Your task to perform on an android device: toggle notification dots Image 0: 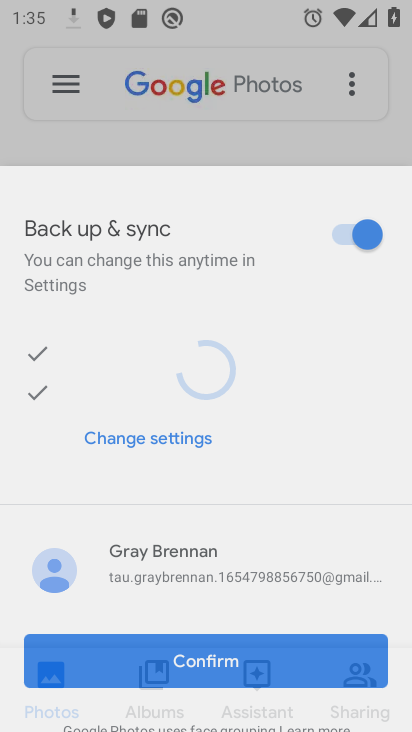
Step 0: press home button
Your task to perform on an android device: toggle notification dots Image 1: 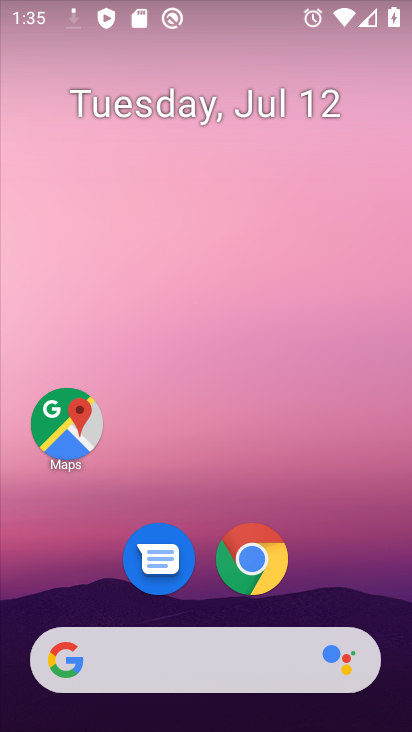
Step 1: drag from (365, 593) to (349, 71)
Your task to perform on an android device: toggle notification dots Image 2: 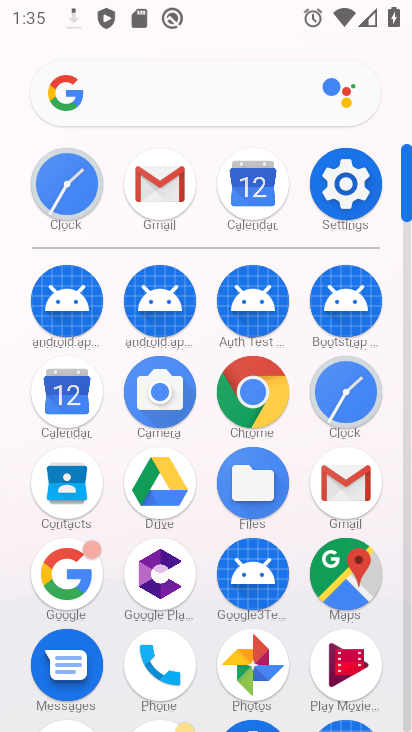
Step 2: click (358, 207)
Your task to perform on an android device: toggle notification dots Image 3: 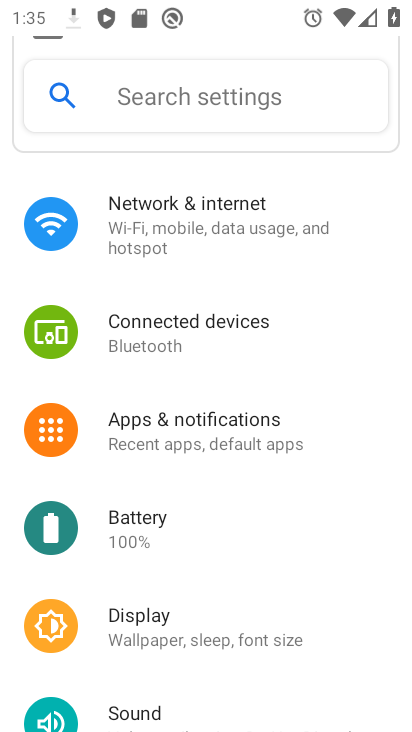
Step 3: drag from (358, 410) to (355, 277)
Your task to perform on an android device: toggle notification dots Image 4: 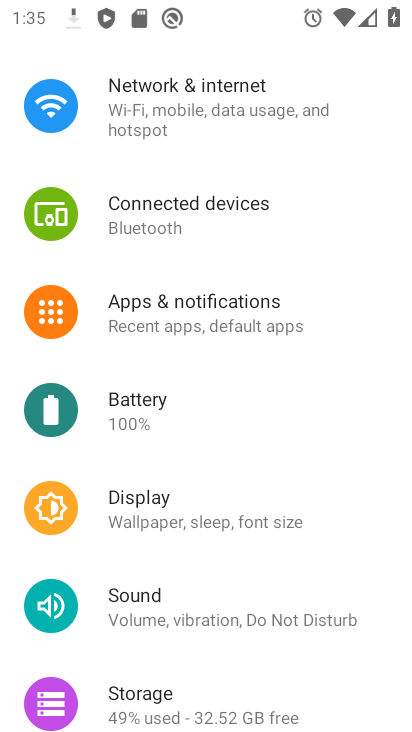
Step 4: drag from (340, 425) to (337, 253)
Your task to perform on an android device: toggle notification dots Image 5: 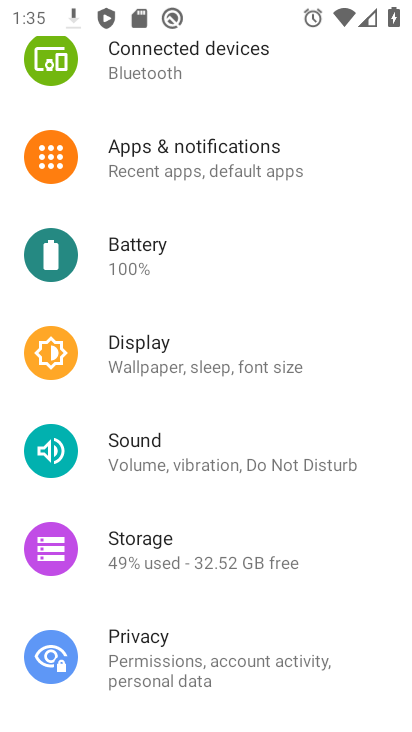
Step 5: drag from (353, 412) to (338, 302)
Your task to perform on an android device: toggle notification dots Image 6: 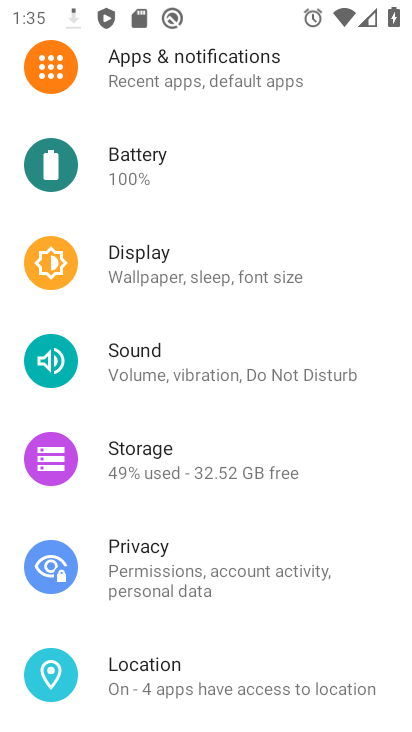
Step 6: drag from (348, 271) to (346, 388)
Your task to perform on an android device: toggle notification dots Image 7: 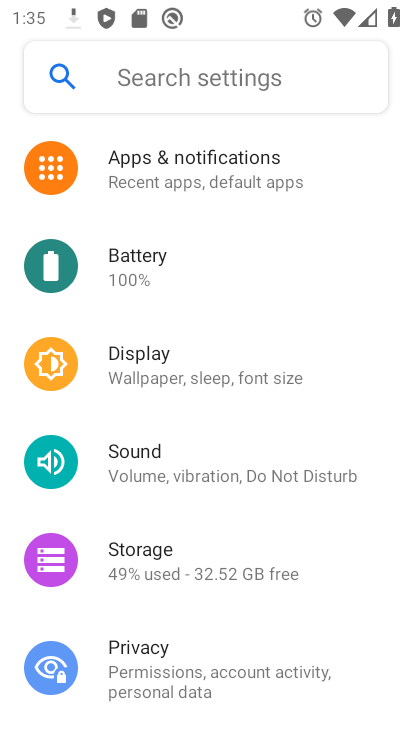
Step 7: drag from (348, 194) to (340, 355)
Your task to perform on an android device: toggle notification dots Image 8: 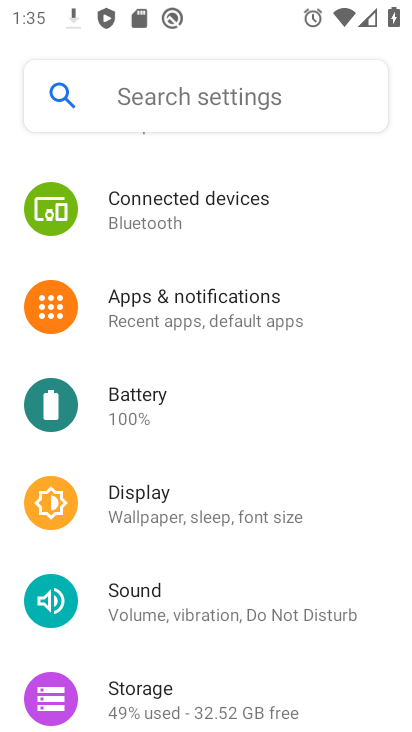
Step 8: drag from (344, 196) to (348, 338)
Your task to perform on an android device: toggle notification dots Image 9: 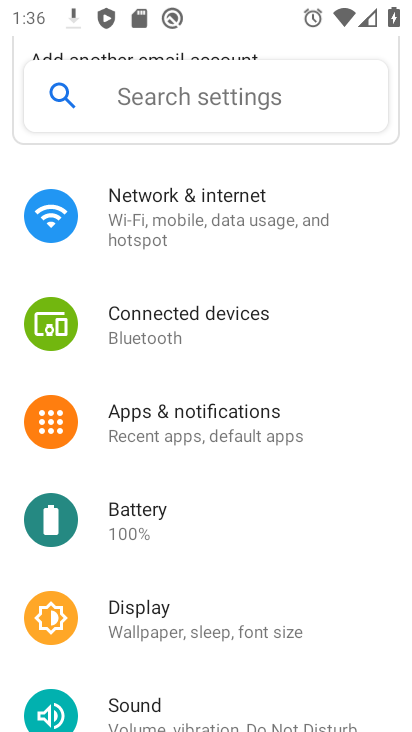
Step 9: click (229, 429)
Your task to perform on an android device: toggle notification dots Image 10: 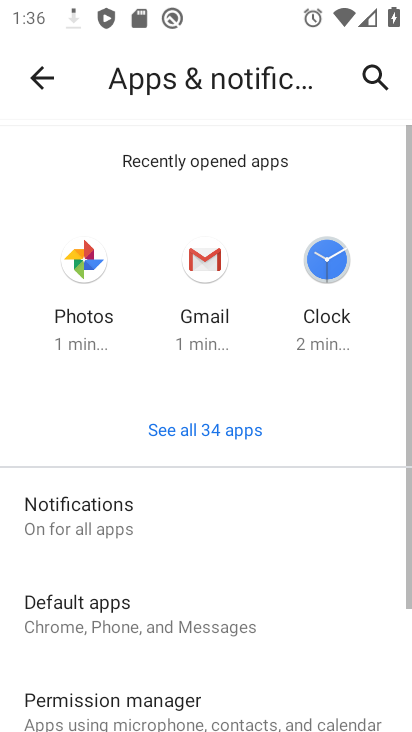
Step 10: drag from (324, 532) to (329, 402)
Your task to perform on an android device: toggle notification dots Image 11: 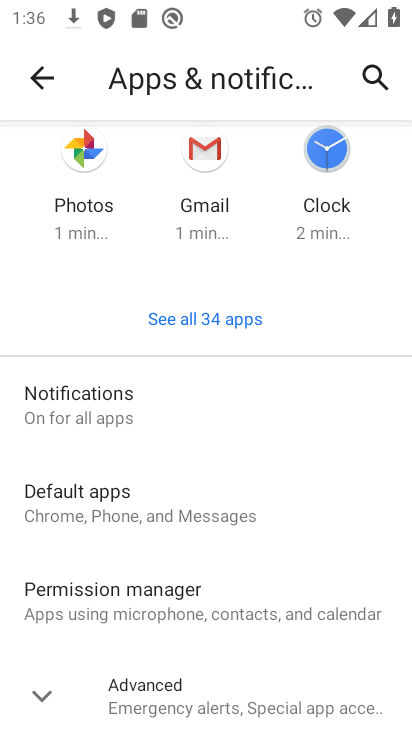
Step 11: click (111, 410)
Your task to perform on an android device: toggle notification dots Image 12: 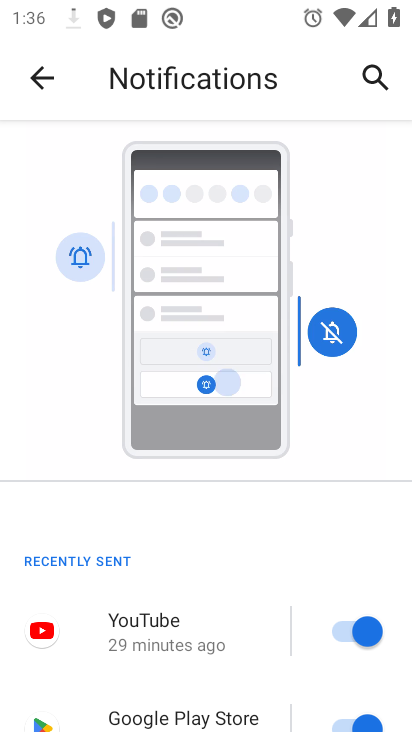
Step 12: drag from (350, 521) to (343, 345)
Your task to perform on an android device: toggle notification dots Image 13: 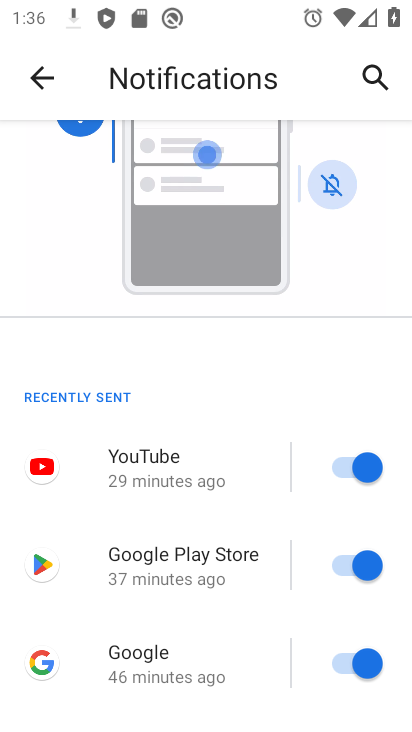
Step 13: drag from (300, 537) to (283, 351)
Your task to perform on an android device: toggle notification dots Image 14: 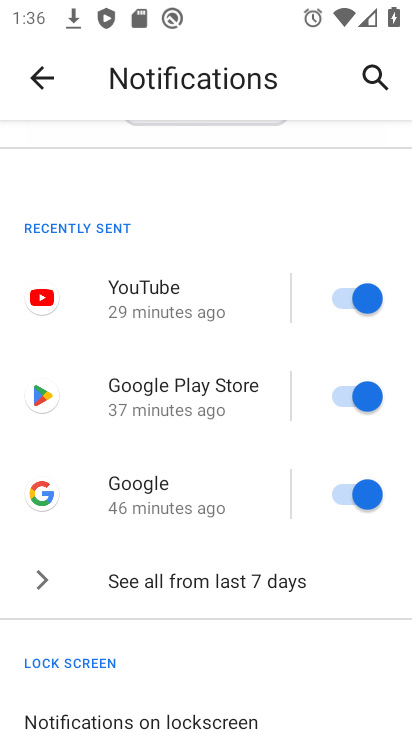
Step 14: drag from (282, 617) to (263, 394)
Your task to perform on an android device: toggle notification dots Image 15: 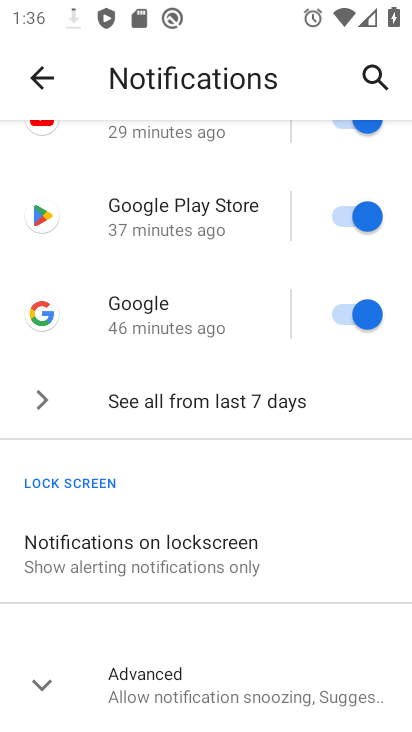
Step 15: click (299, 673)
Your task to perform on an android device: toggle notification dots Image 16: 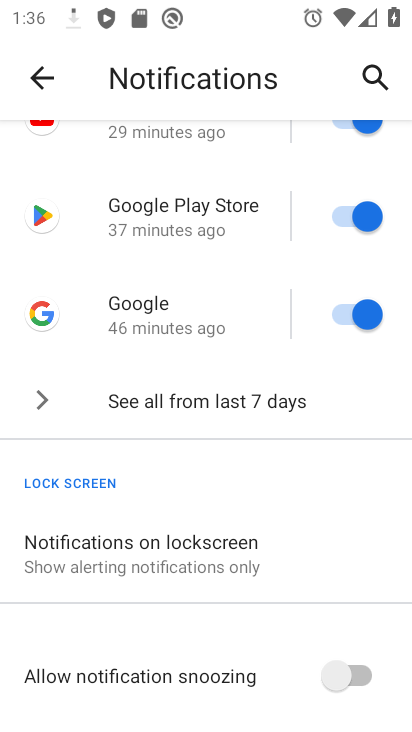
Step 16: drag from (302, 658) to (306, 388)
Your task to perform on an android device: toggle notification dots Image 17: 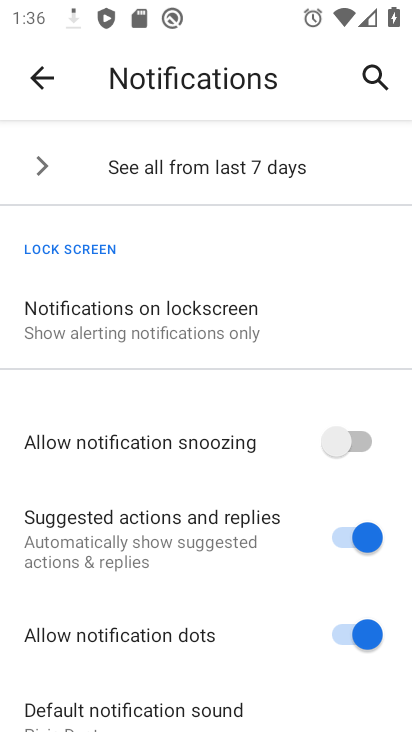
Step 17: drag from (291, 538) to (287, 342)
Your task to perform on an android device: toggle notification dots Image 18: 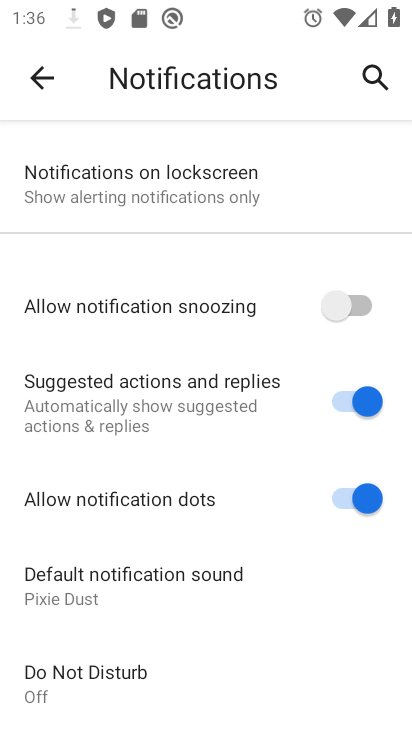
Step 18: click (347, 497)
Your task to perform on an android device: toggle notification dots Image 19: 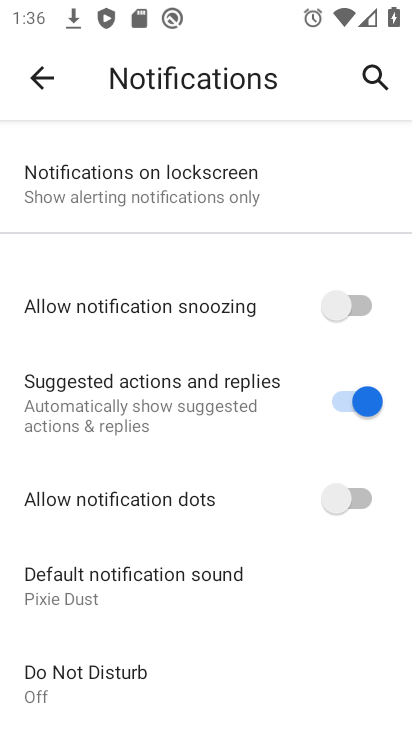
Step 19: task complete